Your task to perform on an android device: Open Google Chrome and click the shortcut for Amazon.com Image 0: 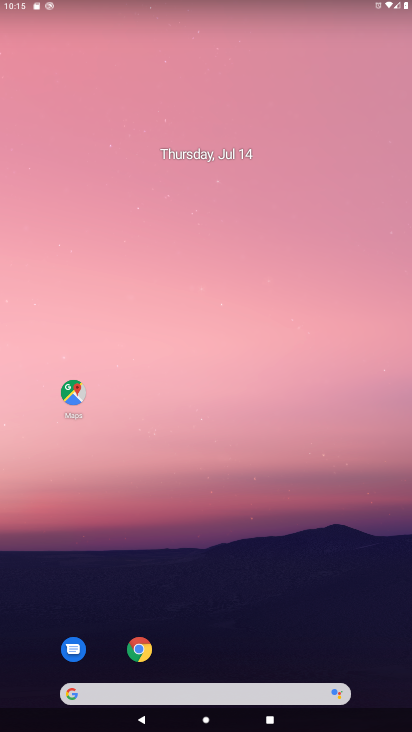
Step 0: click (149, 645)
Your task to perform on an android device: Open Google Chrome and click the shortcut for Amazon.com Image 1: 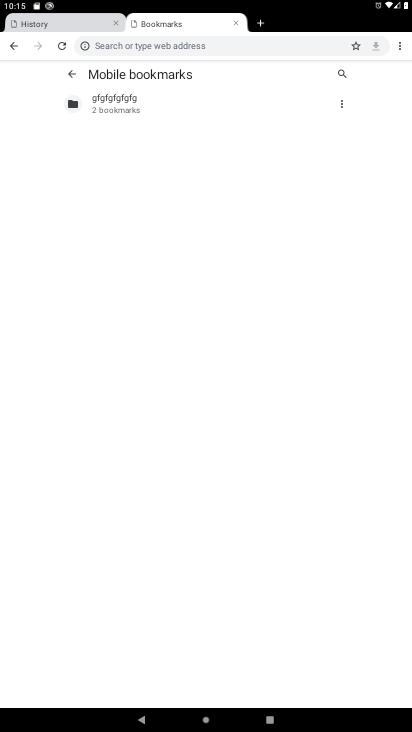
Step 1: click (400, 47)
Your task to perform on an android device: Open Google Chrome and click the shortcut for Amazon.com Image 2: 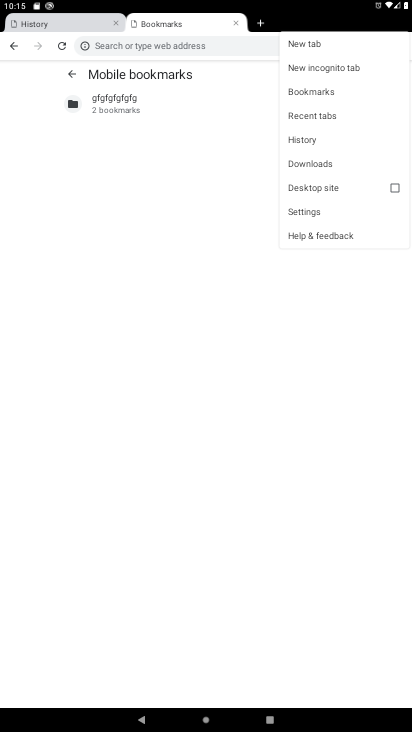
Step 2: click (328, 42)
Your task to perform on an android device: Open Google Chrome and click the shortcut for Amazon.com Image 3: 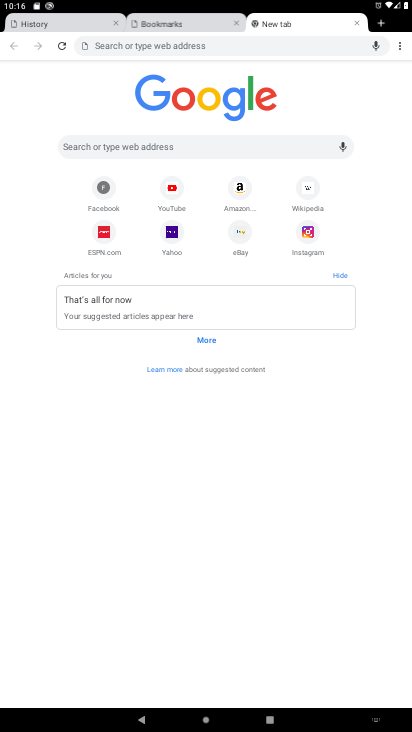
Step 3: click (240, 187)
Your task to perform on an android device: Open Google Chrome and click the shortcut for Amazon.com Image 4: 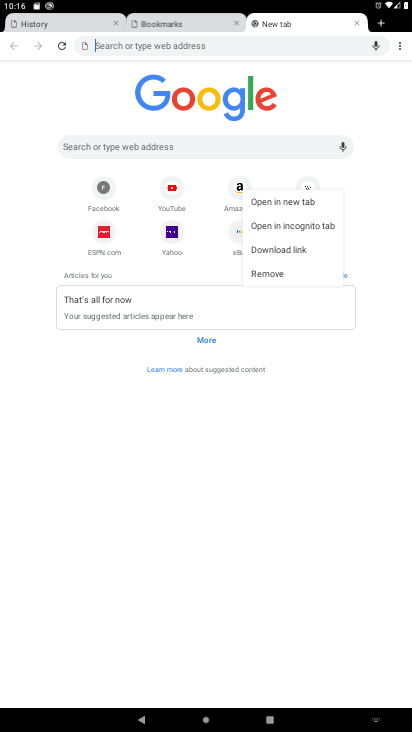
Step 4: click (242, 185)
Your task to perform on an android device: Open Google Chrome and click the shortcut for Amazon.com Image 5: 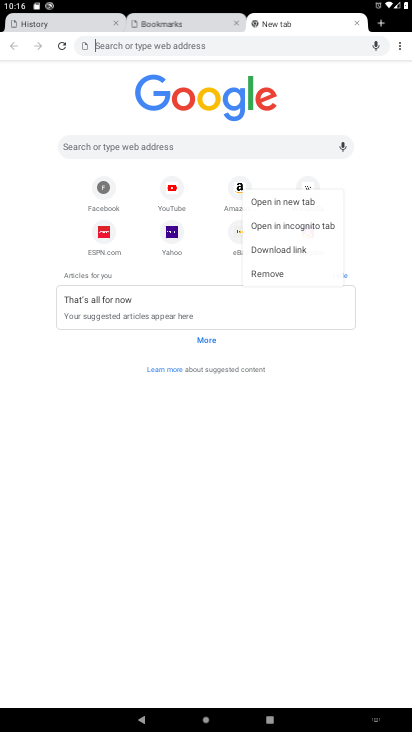
Step 5: click (242, 185)
Your task to perform on an android device: Open Google Chrome and click the shortcut for Amazon.com Image 6: 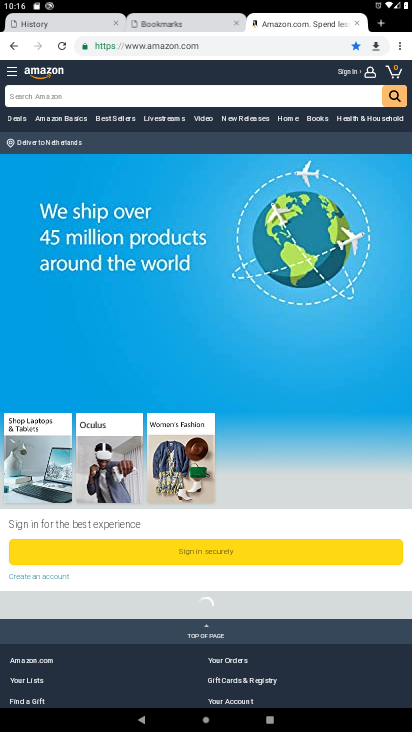
Step 6: task complete